Your task to perform on an android device: open a bookmark in the chrome app Image 0: 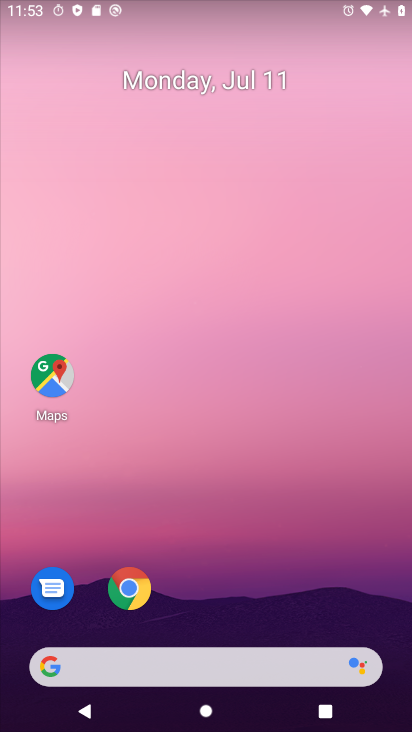
Step 0: click (136, 591)
Your task to perform on an android device: open a bookmark in the chrome app Image 1: 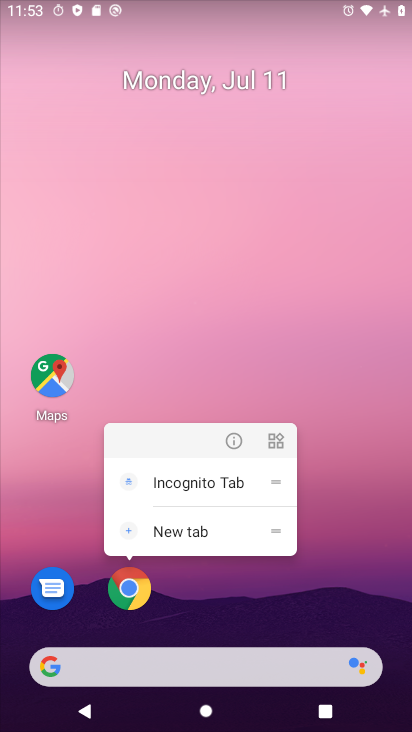
Step 1: click (129, 588)
Your task to perform on an android device: open a bookmark in the chrome app Image 2: 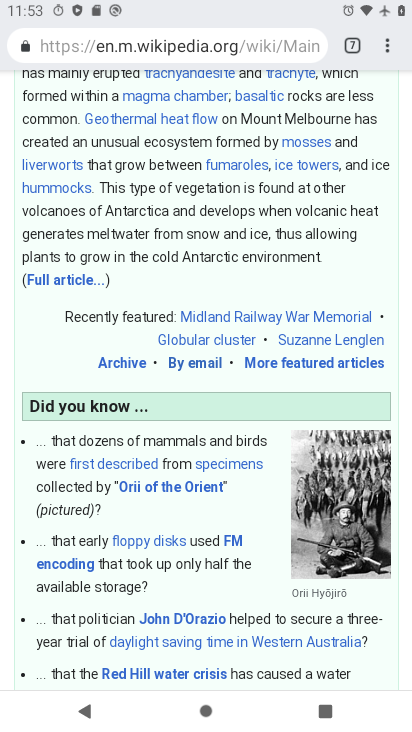
Step 2: click (385, 55)
Your task to perform on an android device: open a bookmark in the chrome app Image 3: 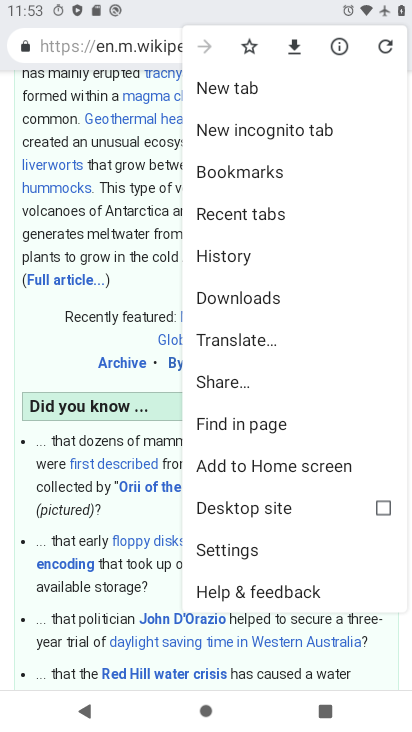
Step 3: click (247, 170)
Your task to perform on an android device: open a bookmark in the chrome app Image 4: 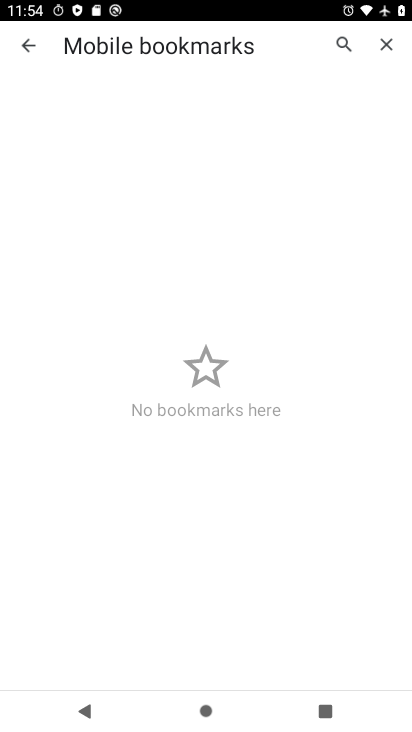
Step 4: task complete